Your task to perform on an android device: clear history in the chrome app Image 0: 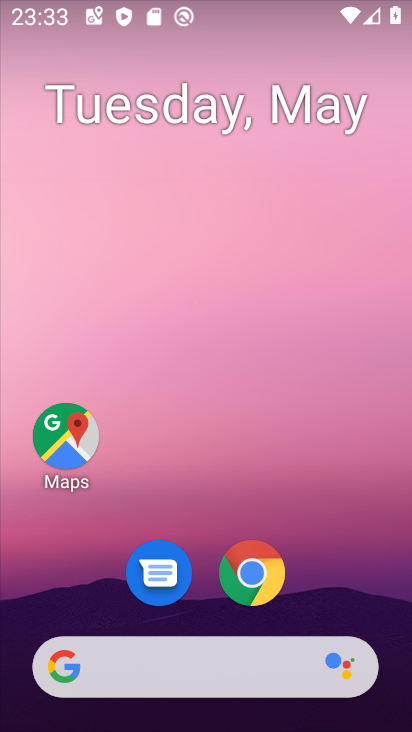
Step 0: drag from (331, 548) to (317, 205)
Your task to perform on an android device: clear history in the chrome app Image 1: 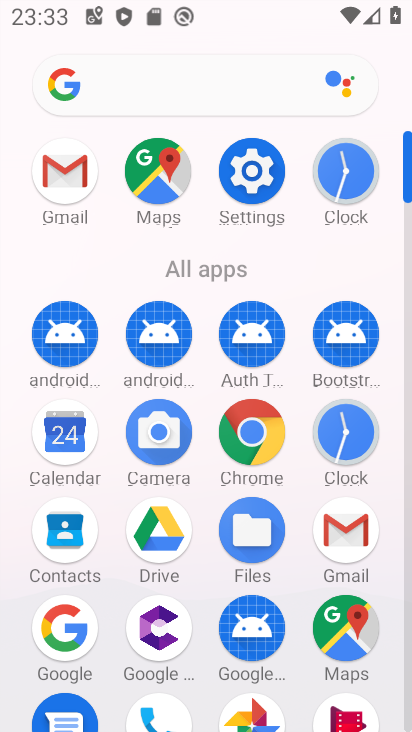
Step 1: click (253, 420)
Your task to perform on an android device: clear history in the chrome app Image 2: 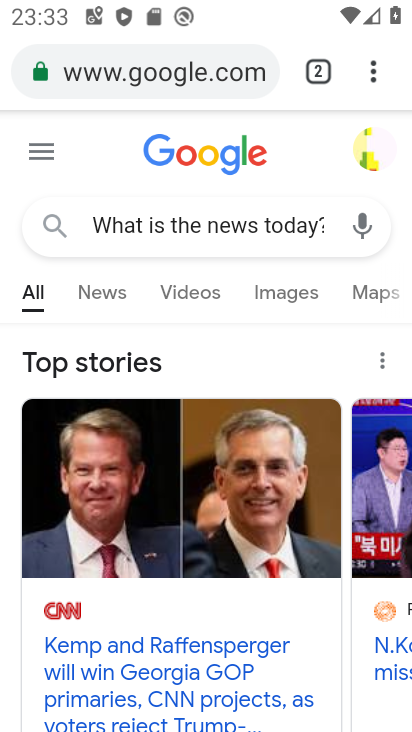
Step 2: click (368, 69)
Your task to perform on an android device: clear history in the chrome app Image 3: 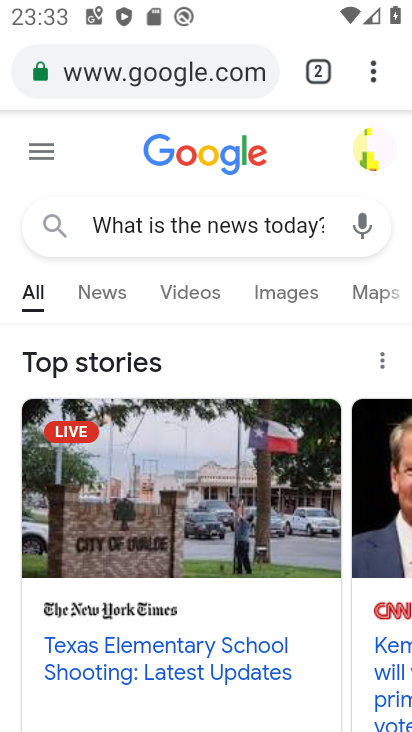
Step 3: click (365, 62)
Your task to perform on an android device: clear history in the chrome app Image 4: 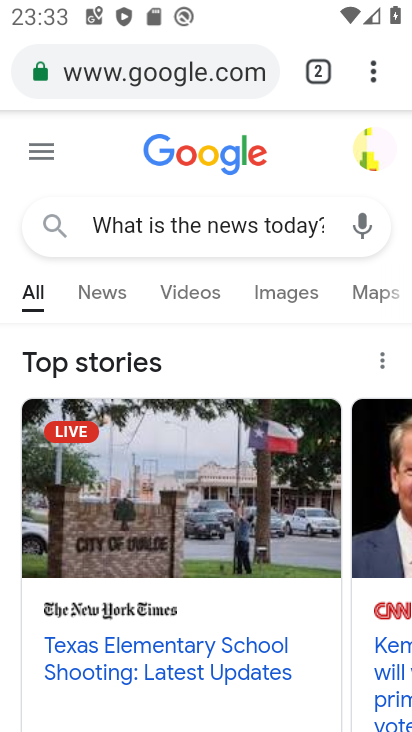
Step 4: click (374, 71)
Your task to perform on an android device: clear history in the chrome app Image 5: 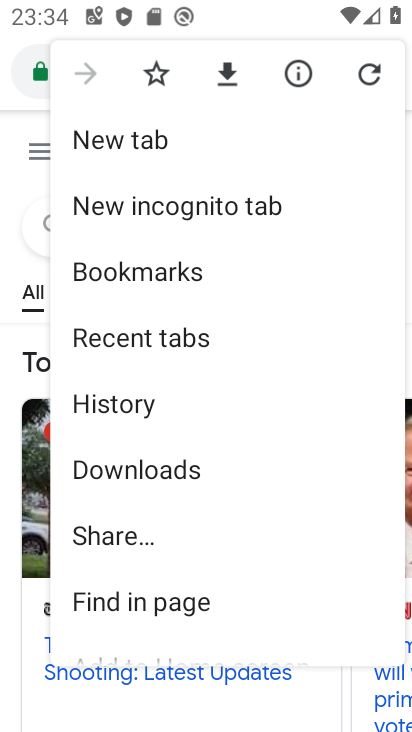
Step 5: click (148, 396)
Your task to perform on an android device: clear history in the chrome app Image 6: 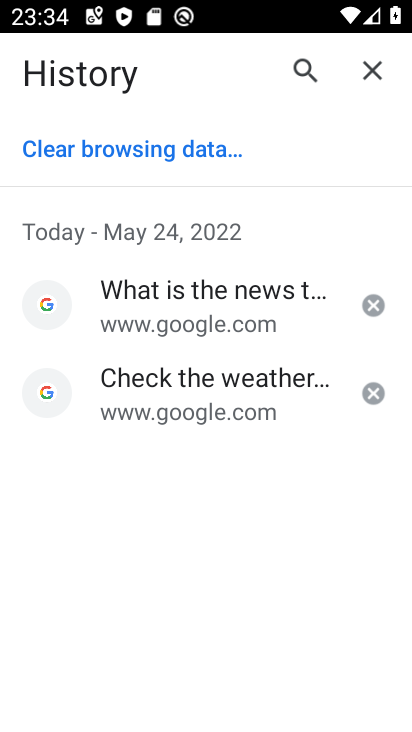
Step 6: click (108, 144)
Your task to perform on an android device: clear history in the chrome app Image 7: 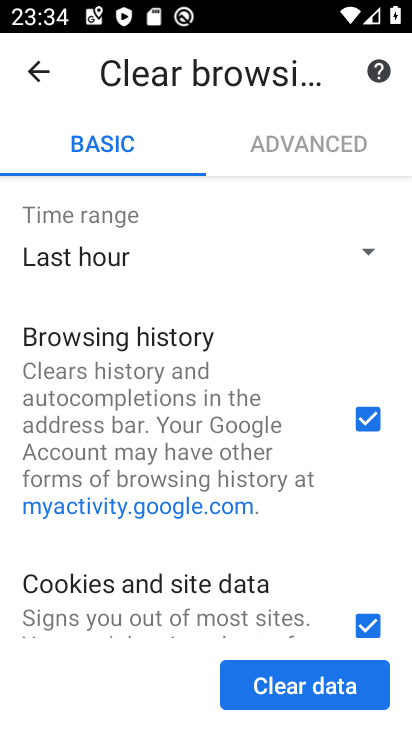
Step 7: click (313, 684)
Your task to perform on an android device: clear history in the chrome app Image 8: 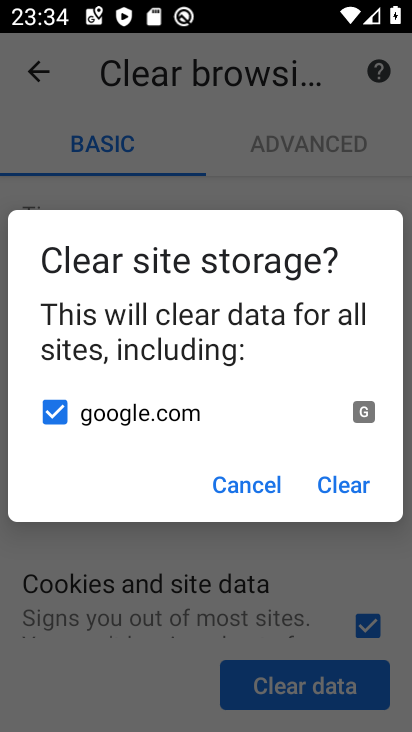
Step 8: click (329, 484)
Your task to perform on an android device: clear history in the chrome app Image 9: 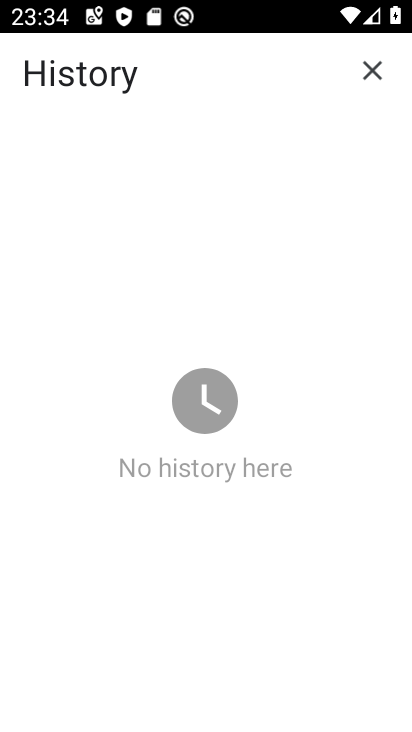
Step 9: task complete